Your task to perform on an android device: Turn on the flashlight Image 0: 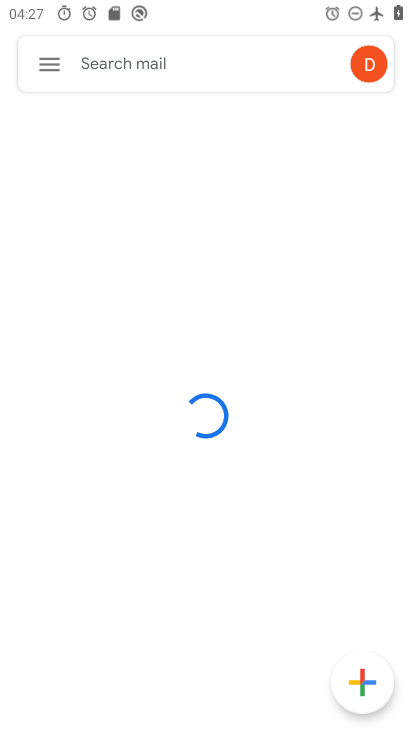
Step 0: press home button
Your task to perform on an android device: Turn on the flashlight Image 1: 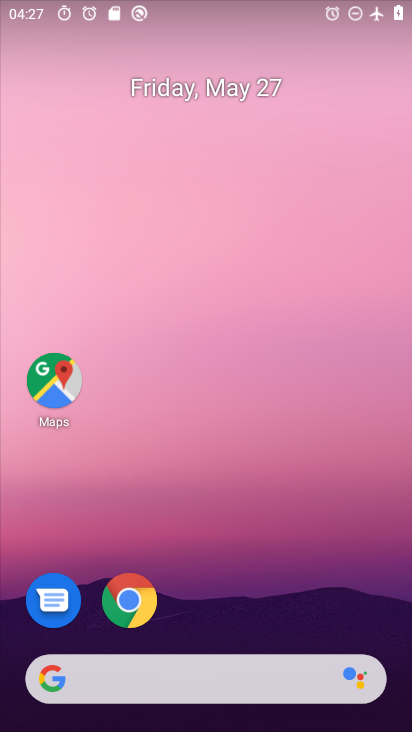
Step 1: drag from (225, 681) to (224, 137)
Your task to perform on an android device: Turn on the flashlight Image 2: 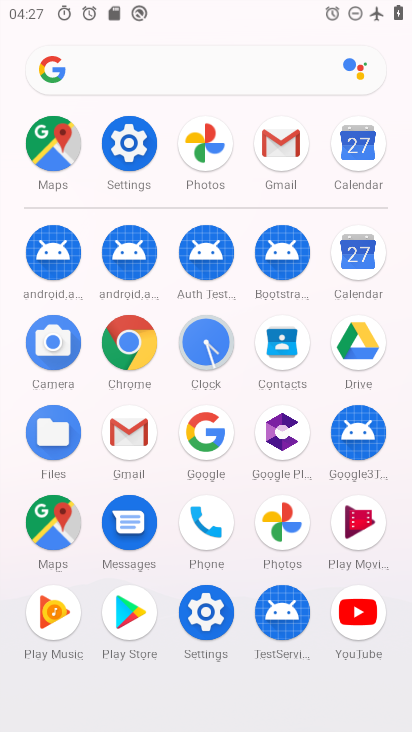
Step 2: click (129, 159)
Your task to perform on an android device: Turn on the flashlight Image 3: 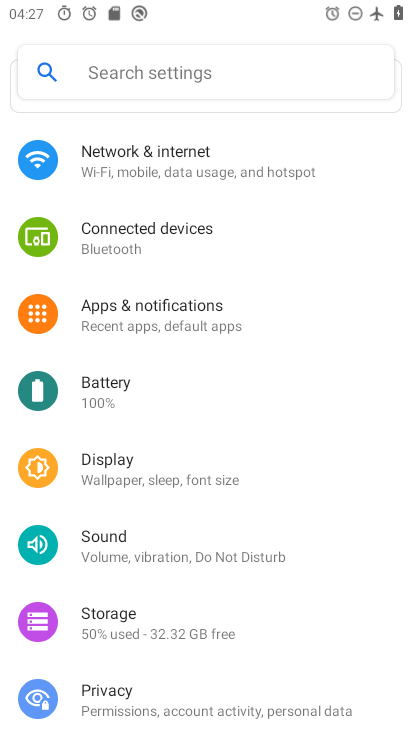
Step 3: task complete